Your task to perform on an android device: Open battery settings Image 0: 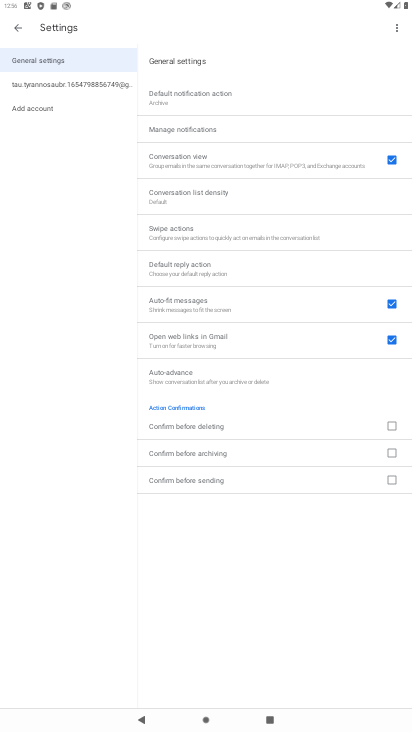
Step 0: press home button
Your task to perform on an android device: Open battery settings Image 1: 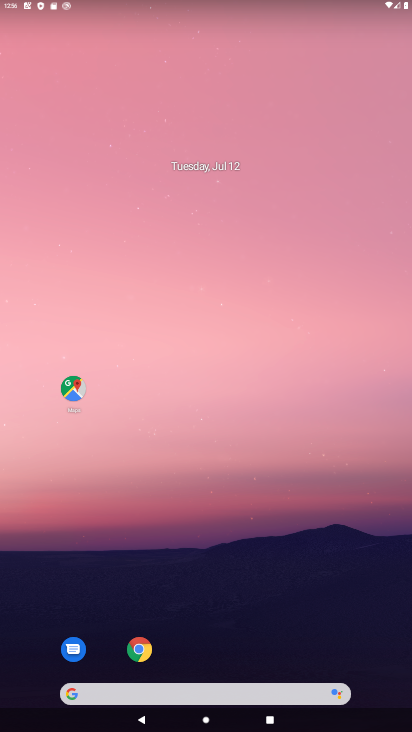
Step 1: drag from (233, 623) to (153, 92)
Your task to perform on an android device: Open battery settings Image 2: 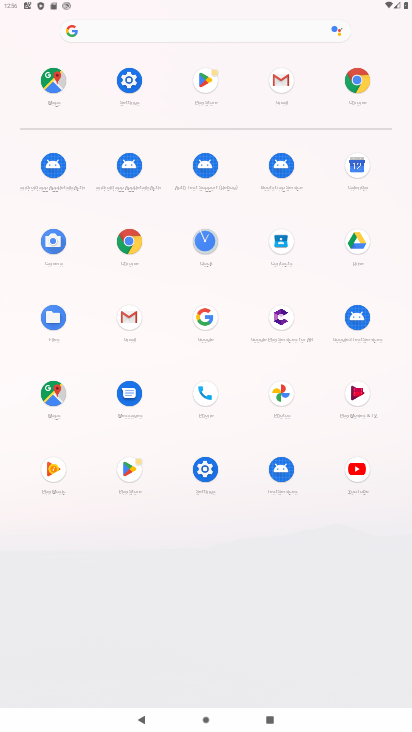
Step 2: click (130, 93)
Your task to perform on an android device: Open battery settings Image 3: 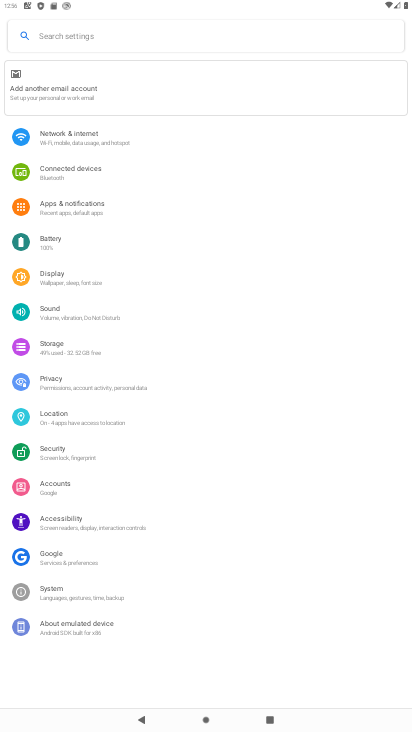
Step 3: click (75, 235)
Your task to perform on an android device: Open battery settings Image 4: 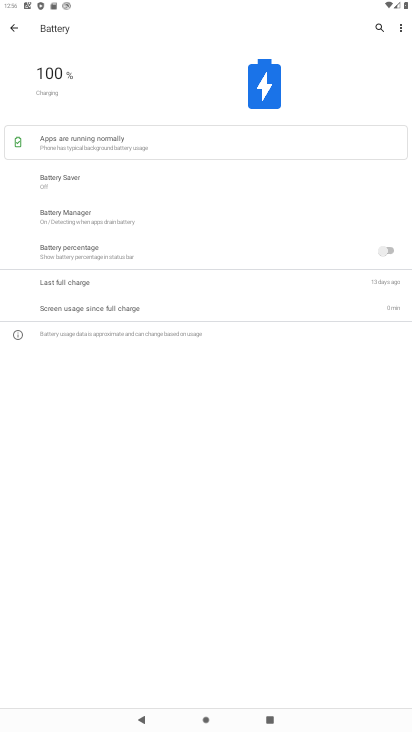
Step 4: task complete